Your task to perform on an android device: open app "Facebook Messenger" Image 0: 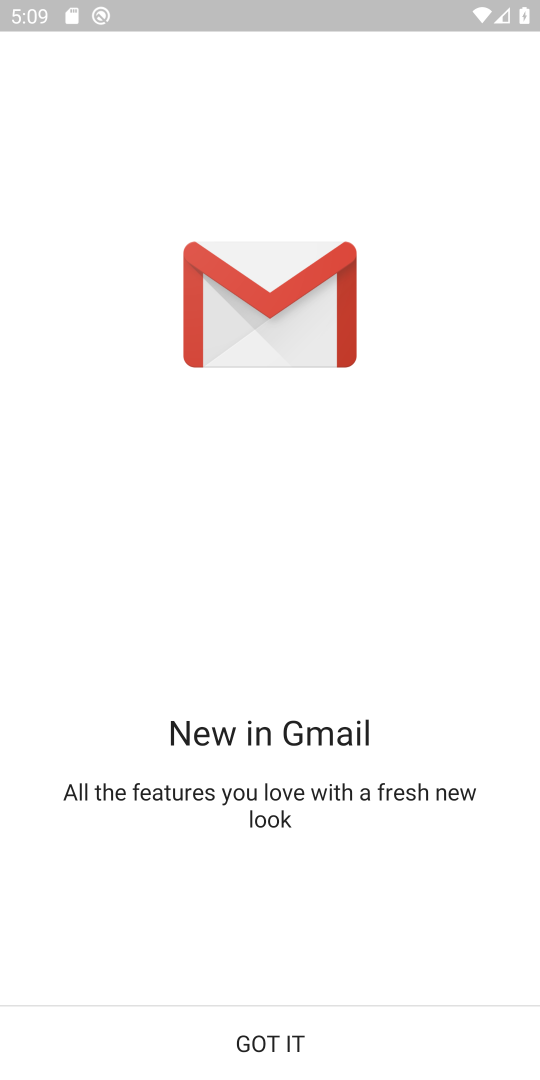
Step 0: press back button
Your task to perform on an android device: open app "Facebook Messenger" Image 1: 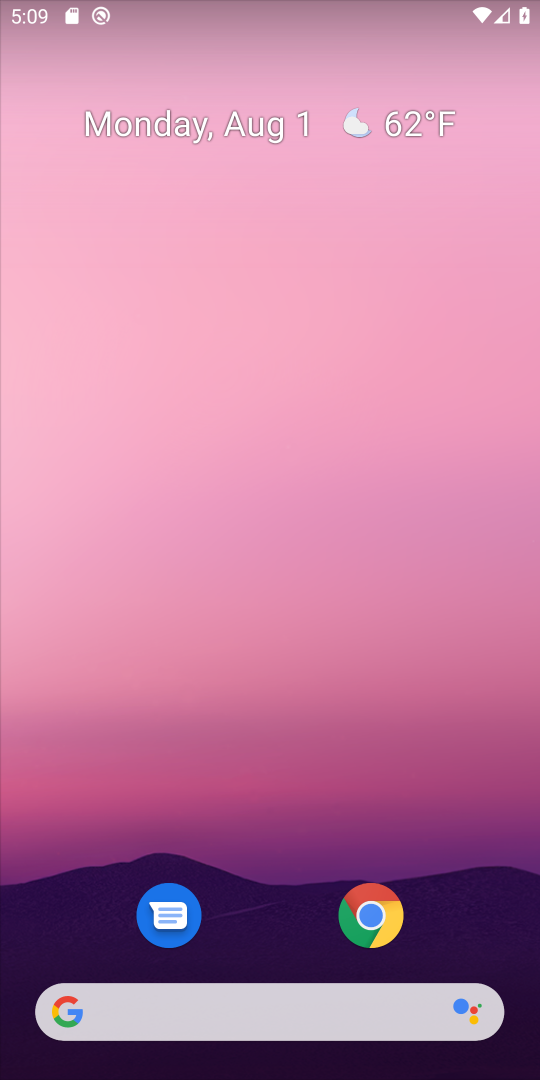
Step 1: drag from (103, 915) to (279, 143)
Your task to perform on an android device: open app "Facebook Messenger" Image 2: 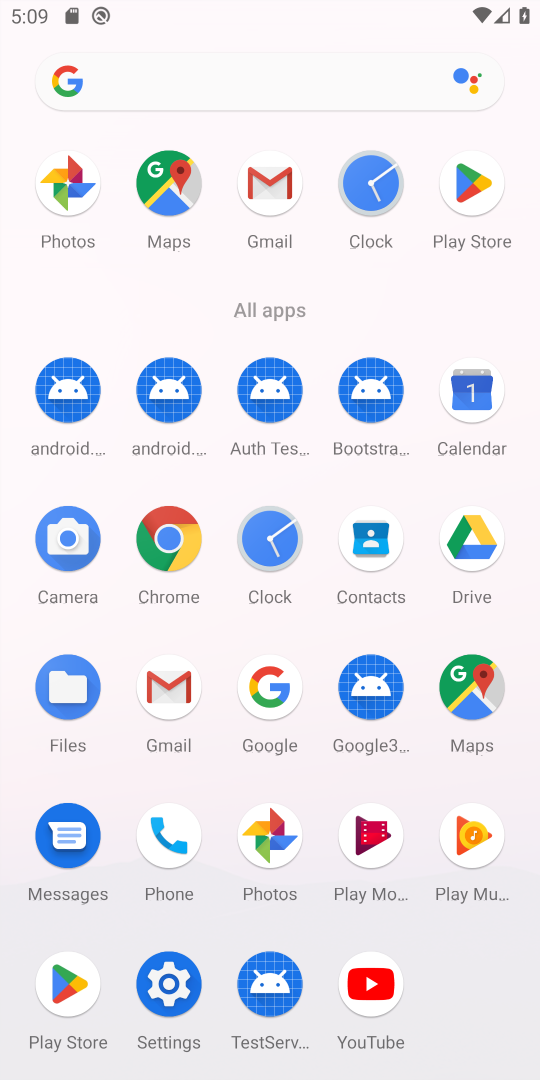
Step 2: click (520, 166)
Your task to perform on an android device: open app "Facebook Messenger" Image 3: 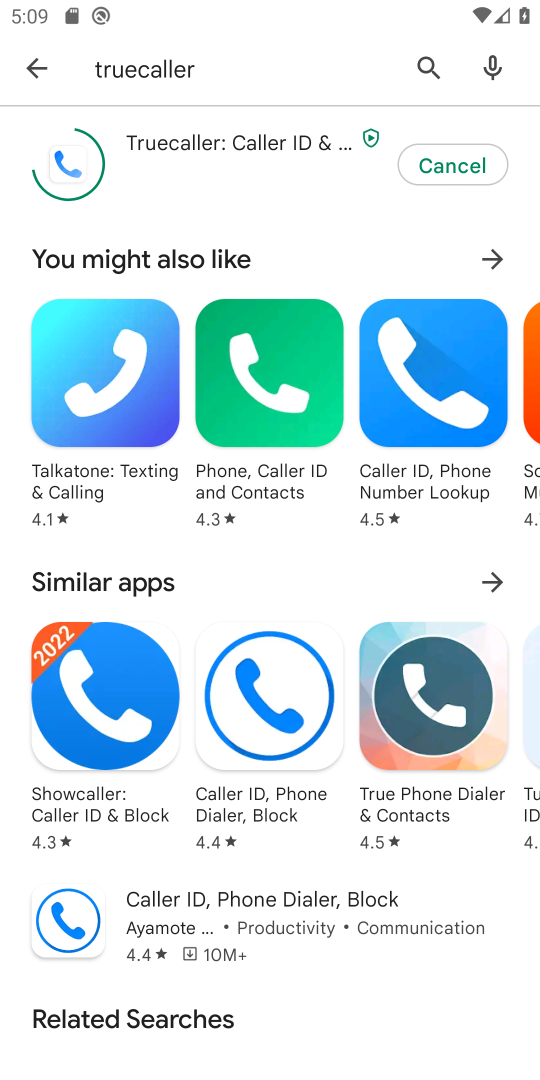
Step 3: click (431, 57)
Your task to perform on an android device: open app "Facebook Messenger" Image 4: 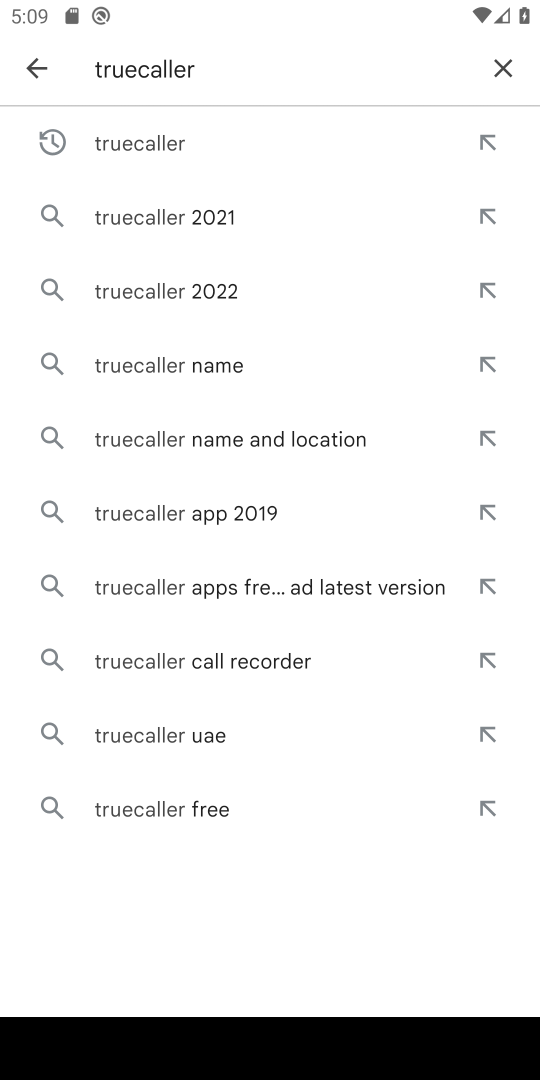
Step 4: click (508, 66)
Your task to perform on an android device: open app "Facebook Messenger" Image 5: 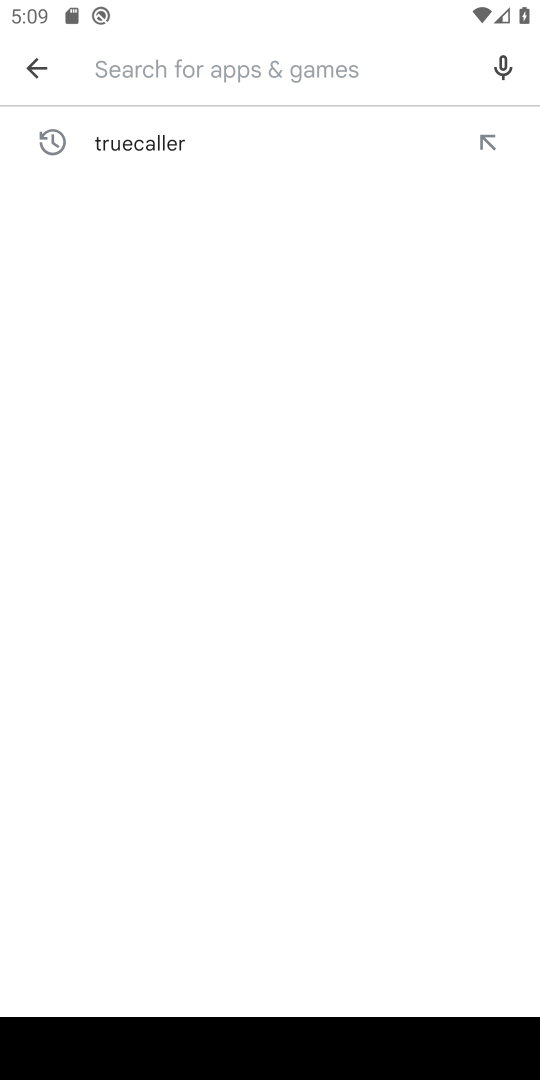
Step 5: click (247, 60)
Your task to perform on an android device: open app "Facebook Messenger" Image 6: 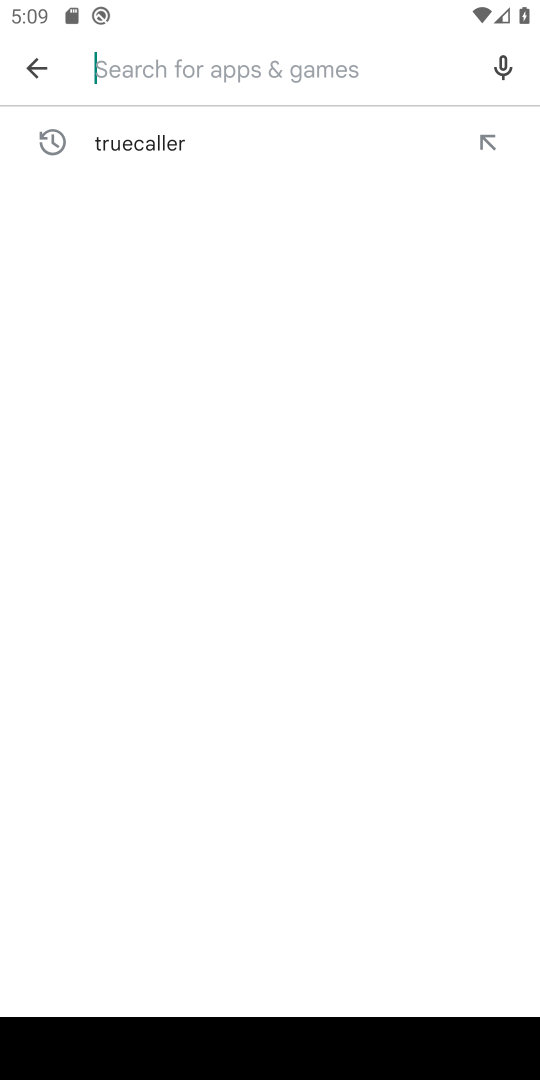
Step 6: click (100, 48)
Your task to perform on an android device: open app "Facebook Messenger" Image 7: 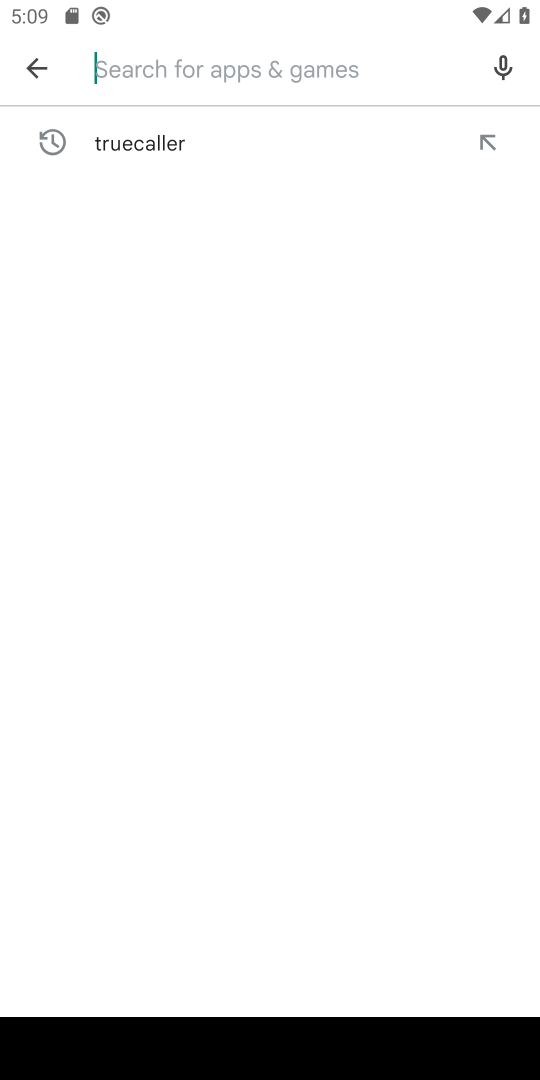
Step 7: click (162, 480)
Your task to perform on an android device: open app "Facebook Messenger" Image 8: 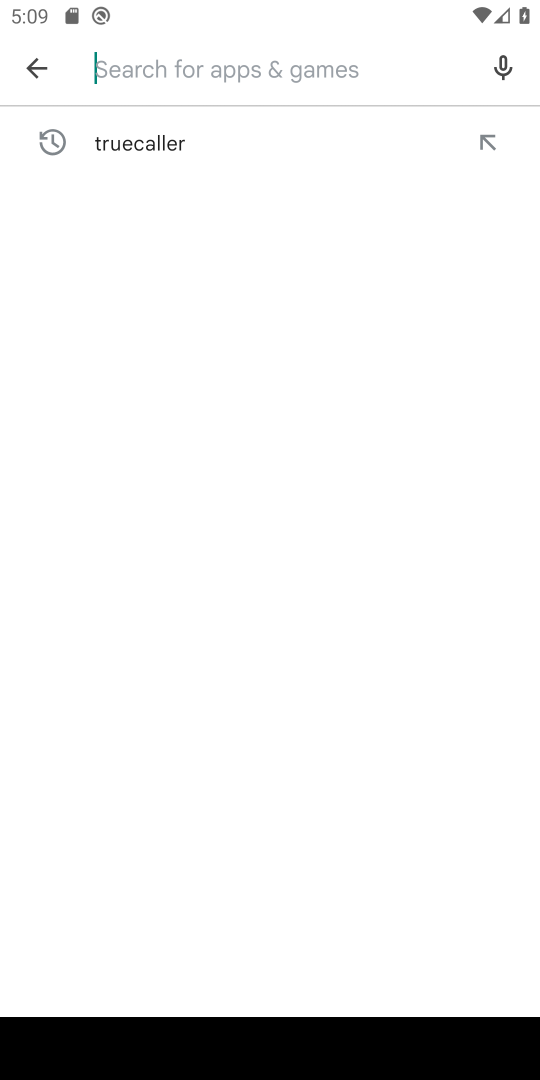
Step 8: type "Facebook Messenger"
Your task to perform on an android device: open app "Facebook Messenger" Image 9: 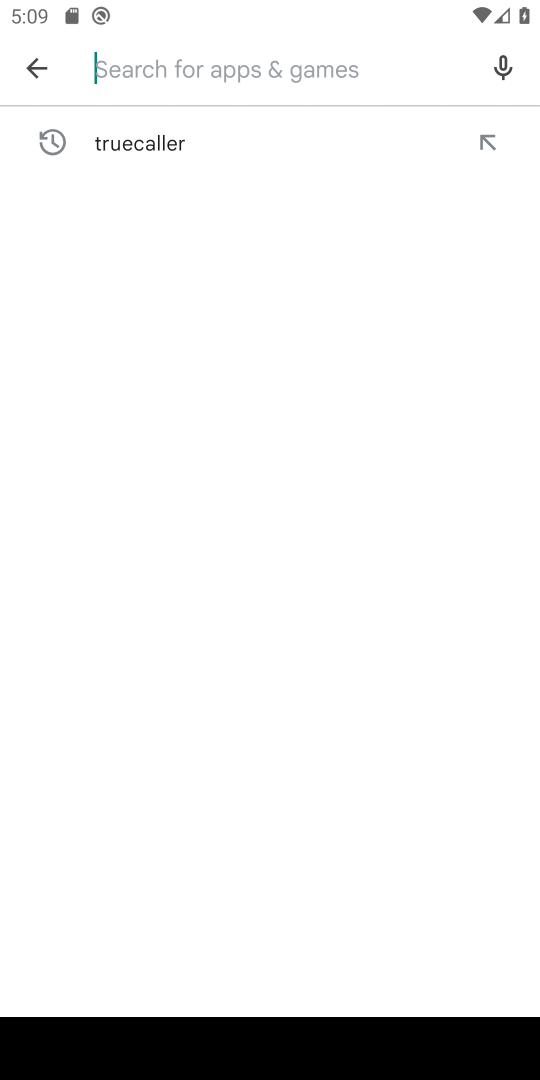
Step 9: click (162, 480)
Your task to perform on an android device: open app "Facebook Messenger" Image 10: 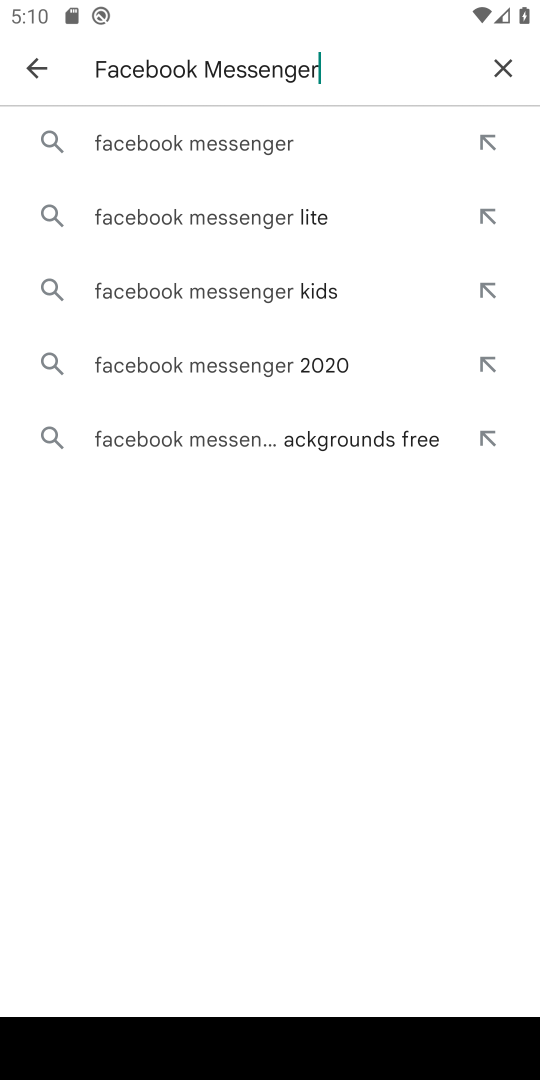
Step 10: click (248, 141)
Your task to perform on an android device: open app "Facebook Messenger" Image 11: 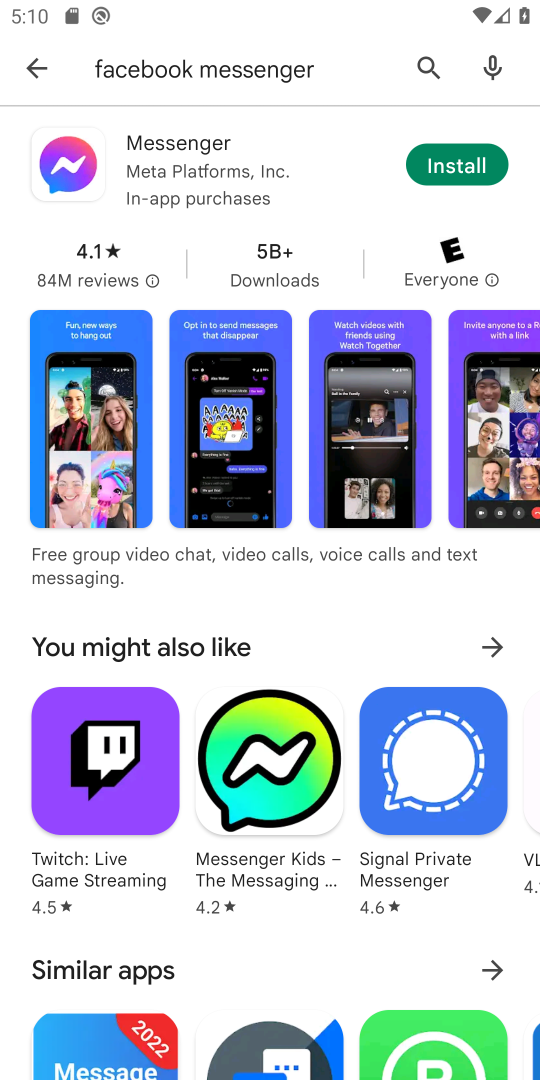
Step 11: task complete